Your task to perform on an android device: make emails show in primary in the gmail app Image 0: 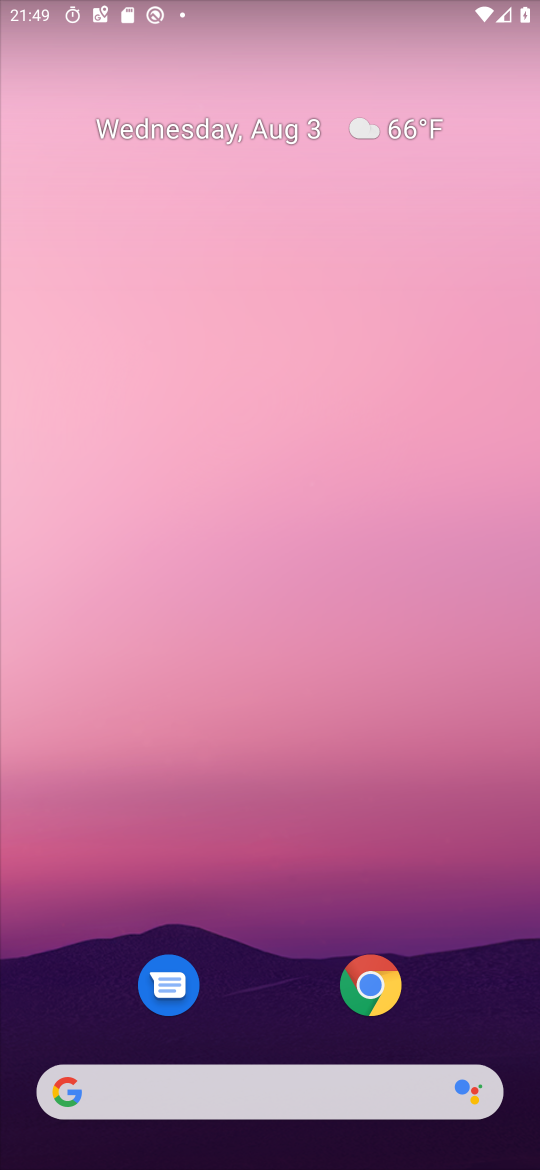
Step 0: drag from (263, 988) to (246, 291)
Your task to perform on an android device: make emails show in primary in the gmail app Image 1: 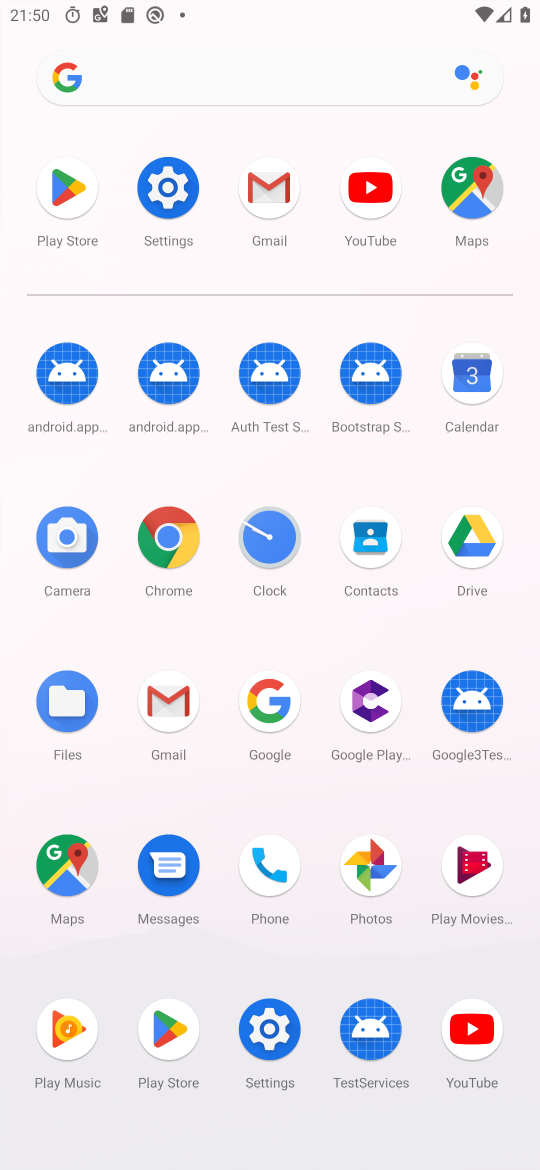
Step 1: click (261, 210)
Your task to perform on an android device: make emails show in primary in the gmail app Image 2: 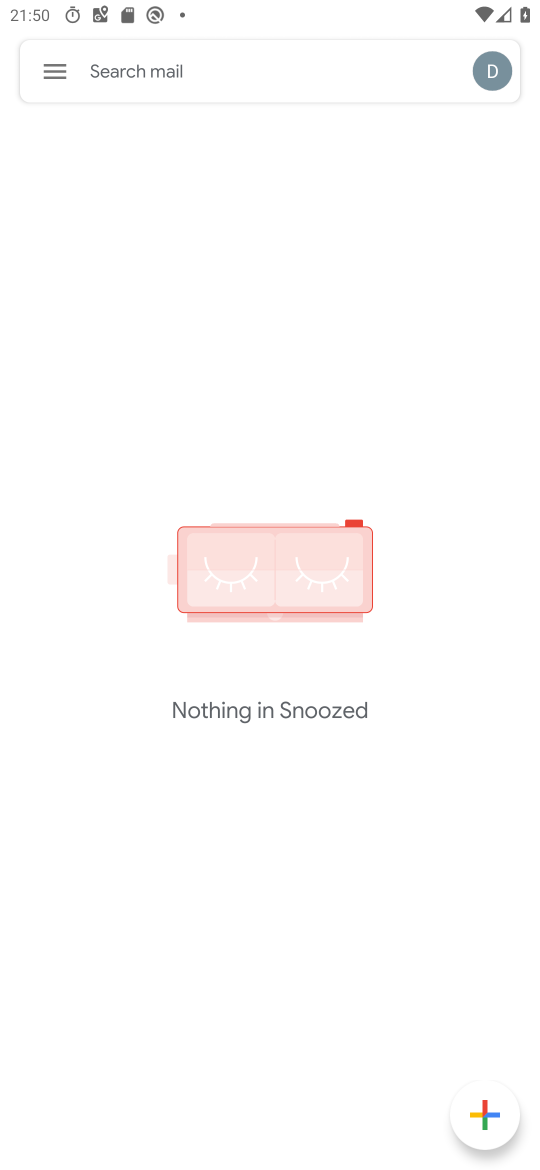
Step 2: click (66, 81)
Your task to perform on an android device: make emails show in primary in the gmail app Image 3: 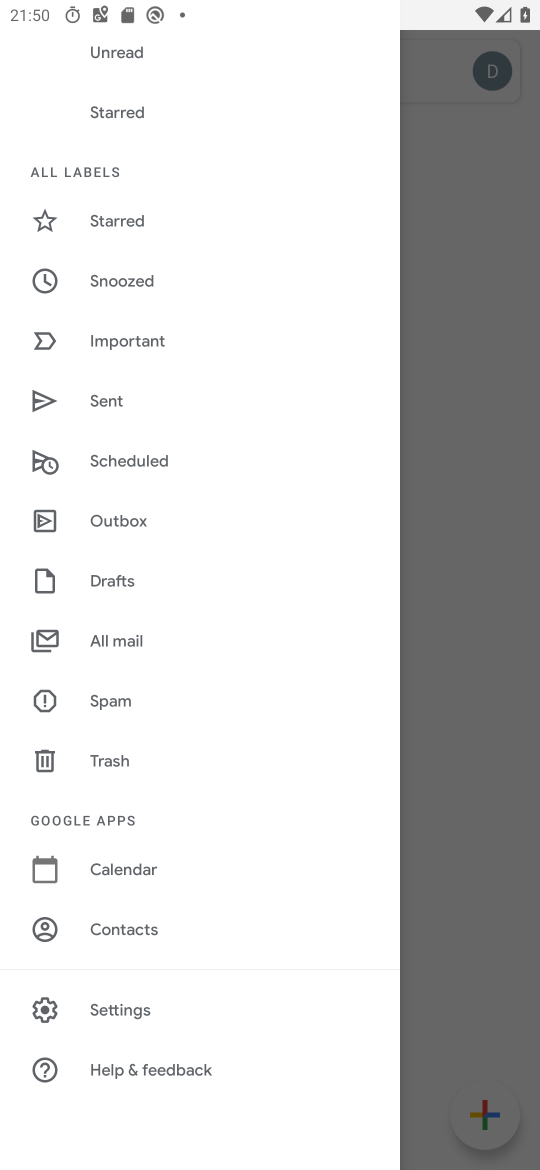
Step 3: click (152, 1006)
Your task to perform on an android device: make emails show in primary in the gmail app Image 4: 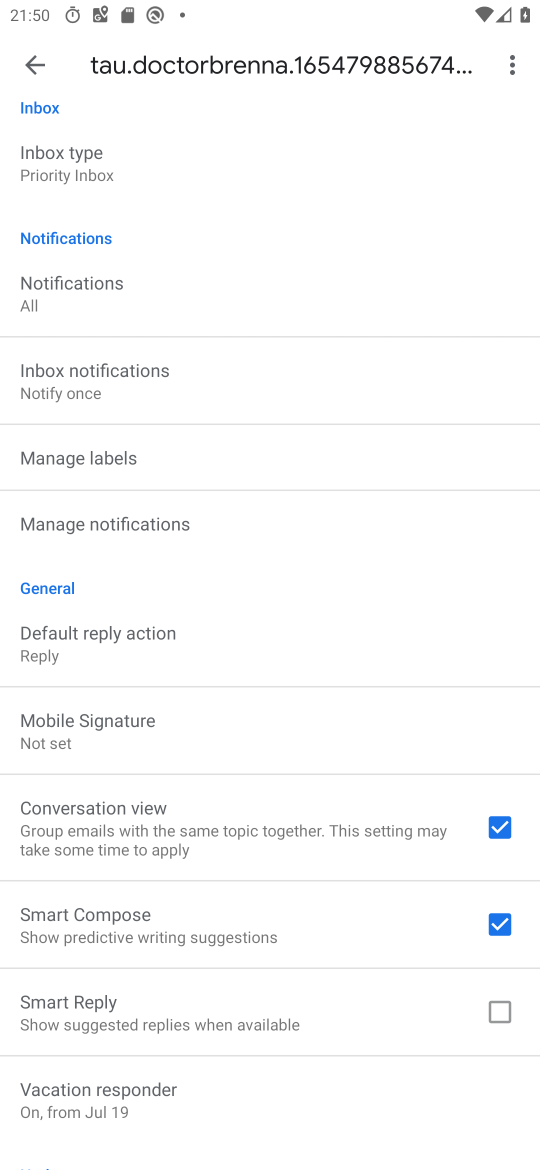
Step 4: drag from (202, 297) to (204, 633)
Your task to perform on an android device: make emails show in primary in the gmail app Image 5: 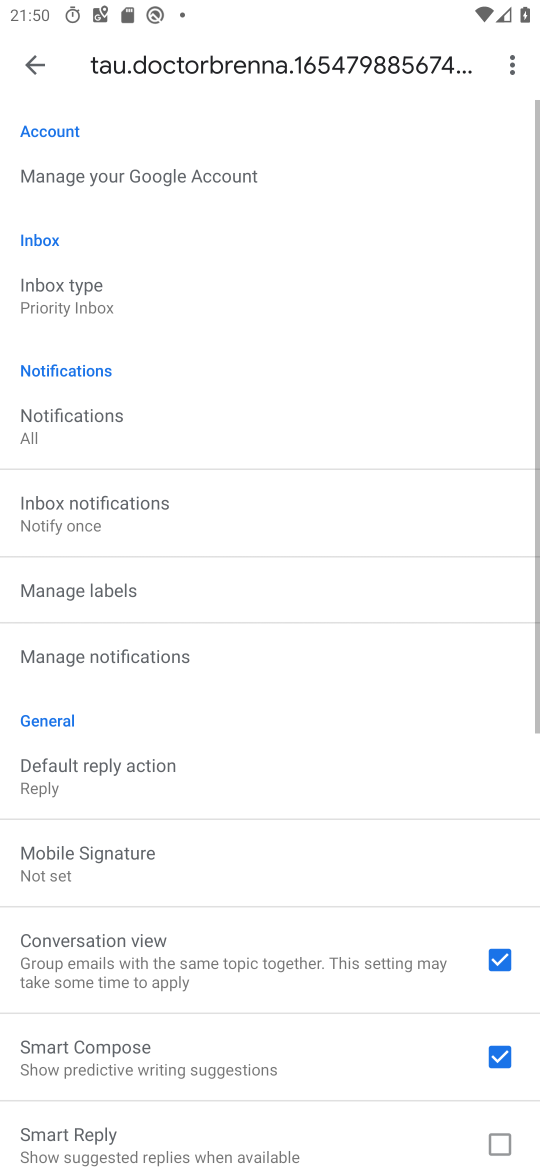
Step 5: click (101, 301)
Your task to perform on an android device: make emails show in primary in the gmail app Image 6: 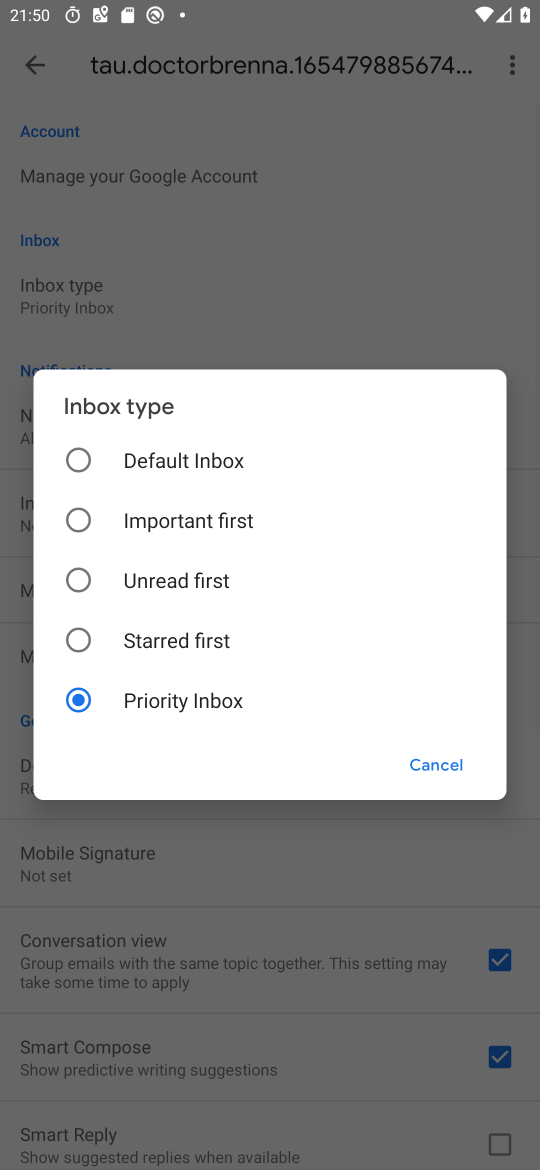
Step 6: click (155, 480)
Your task to perform on an android device: make emails show in primary in the gmail app Image 7: 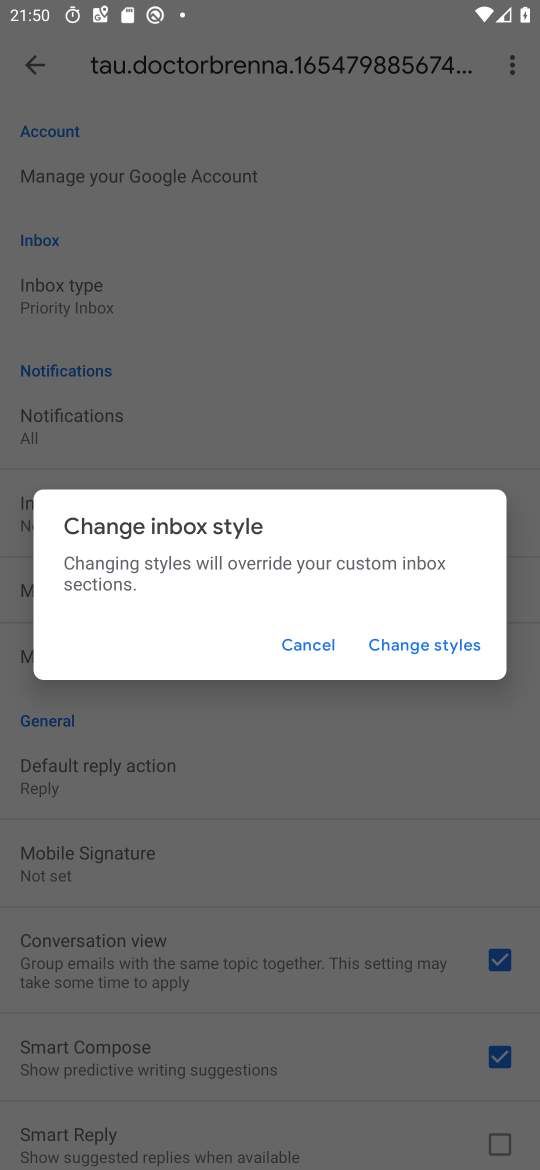
Step 7: click (418, 647)
Your task to perform on an android device: make emails show in primary in the gmail app Image 8: 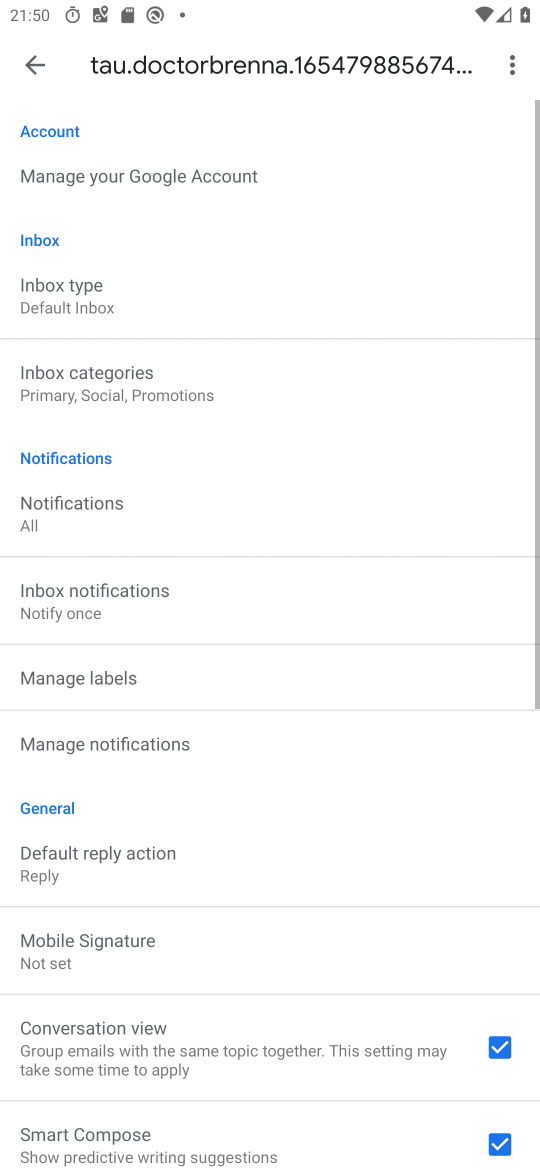
Step 8: task complete